Your task to perform on an android device: Find coffee shops on Maps Image 0: 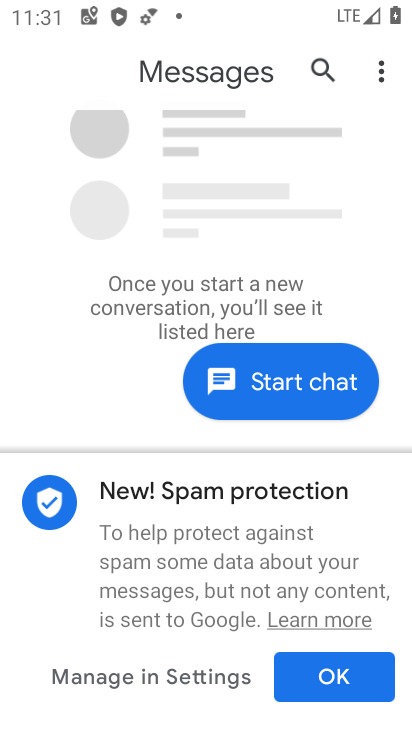
Step 0: press home button
Your task to perform on an android device: Find coffee shops on Maps Image 1: 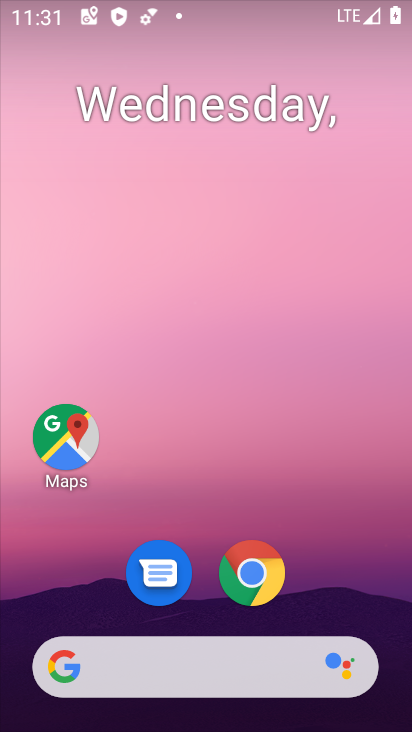
Step 1: drag from (238, 623) to (239, 319)
Your task to perform on an android device: Find coffee shops on Maps Image 2: 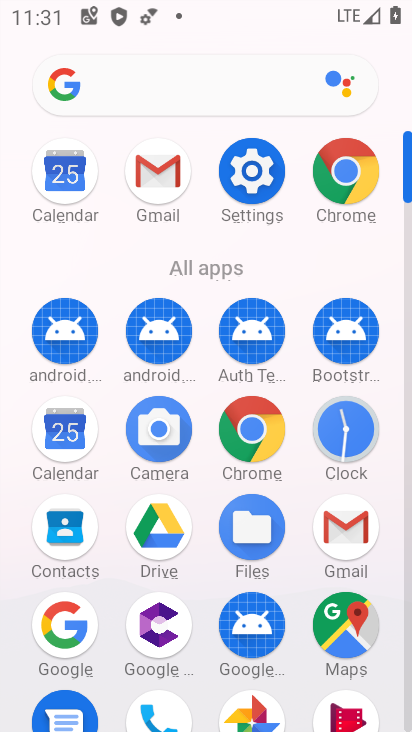
Step 2: click (350, 621)
Your task to perform on an android device: Find coffee shops on Maps Image 3: 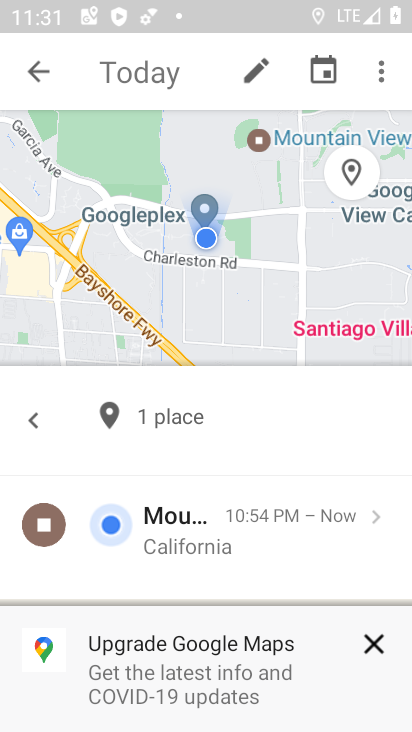
Step 3: click (366, 645)
Your task to perform on an android device: Find coffee shops on Maps Image 4: 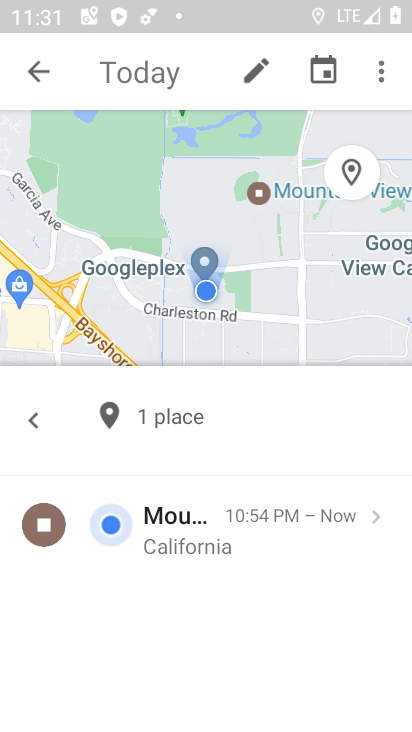
Step 4: click (47, 81)
Your task to perform on an android device: Find coffee shops on Maps Image 5: 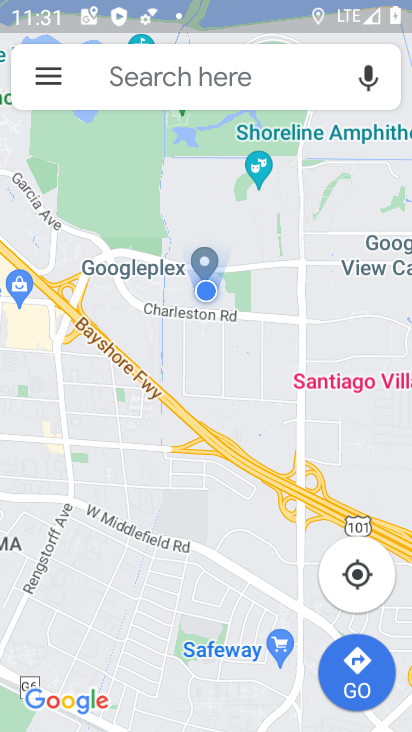
Step 5: click (183, 89)
Your task to perform on an android device: Find coffee shops on Maps Image 6: 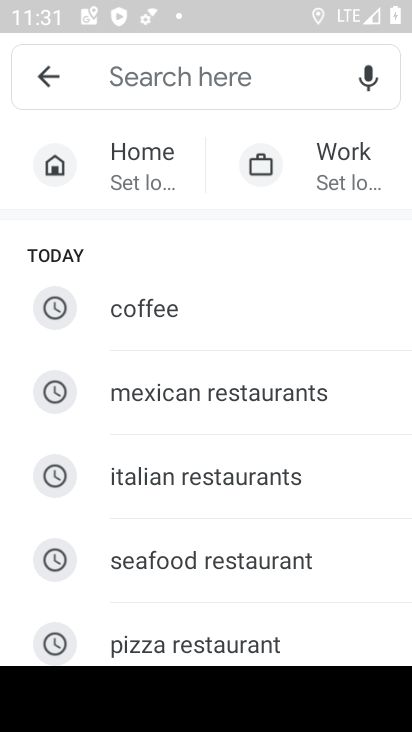
Step 6: click (158, 313)
Your task to perform on an android device: Find coffee shops on Maps Image 7: 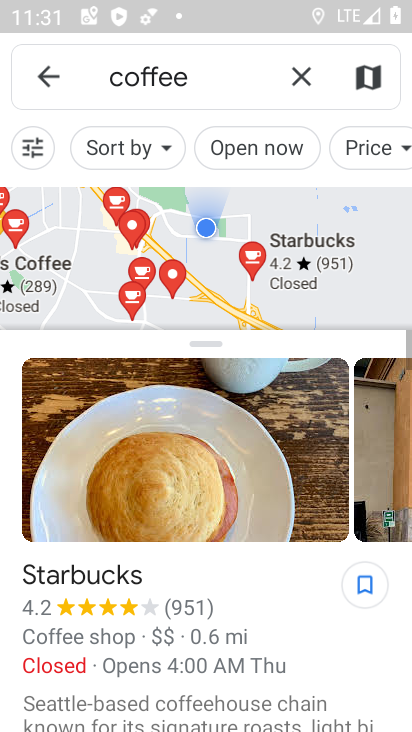
Step 7: task complete